Your task to perform on an android device: allow notifications from all sites in the chrome app Image 0: 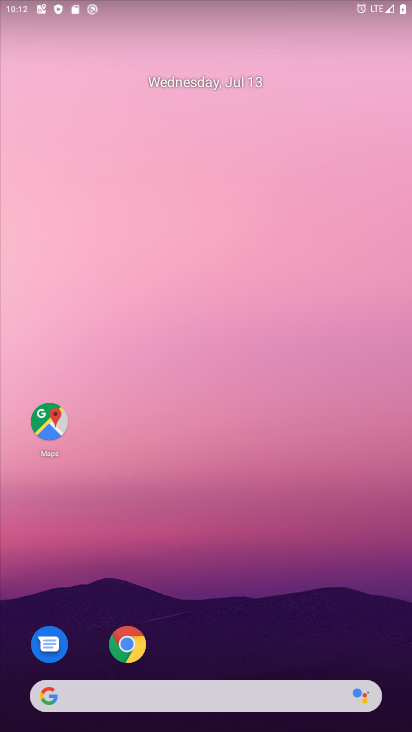
Step 0: drag from (201, 728) to (203, 117)
Your task to perform on an android device: allow notifications from all sites in the chrome app Image 1: 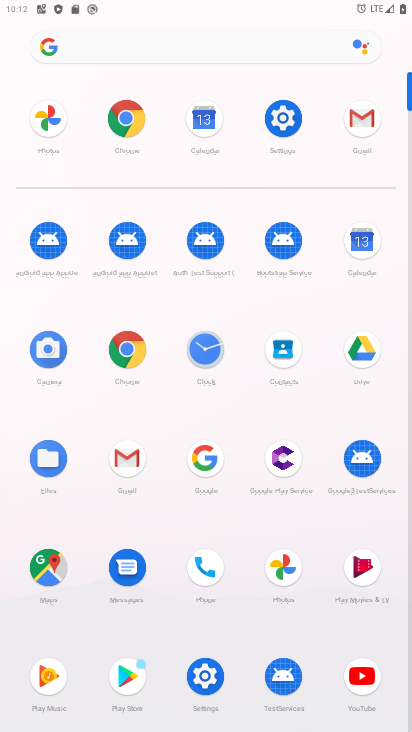
Step 1: click (123, 348)
Your task to perform on an android device: allow notifications from all sites in the chrome app Image 2: 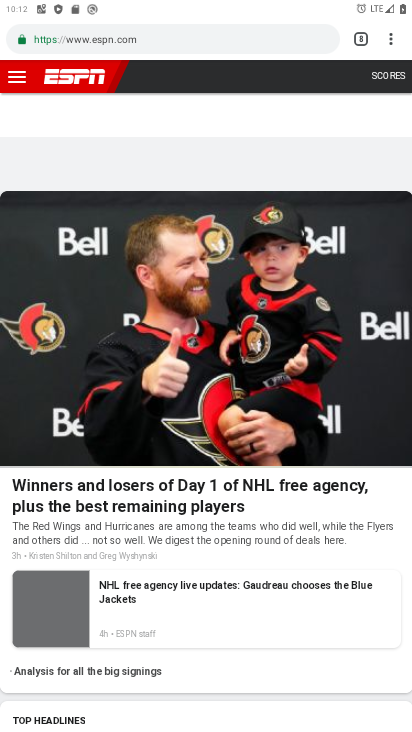
Step 2: click (391, 45)
Your task to perform on an android device: allow notifications from all sites in the chrome app Image 3: 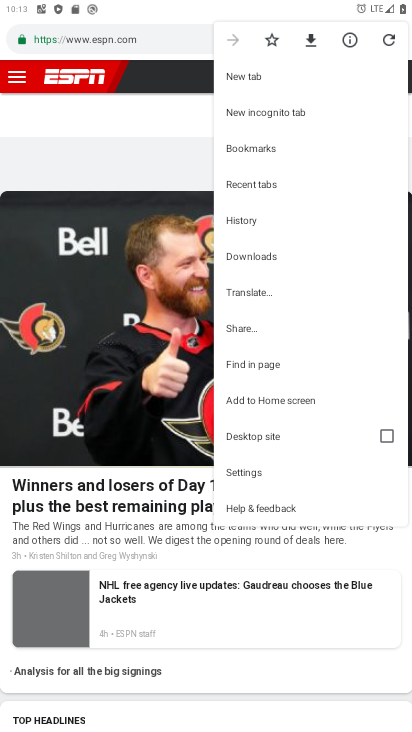
Step 3: click (240, 471)
Your task to perform on an android device: allow notifications from all sites in the chrome app Image 4: 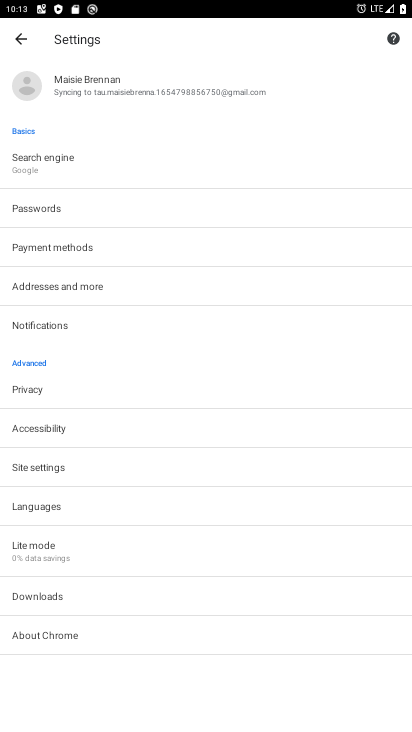
Step 4: click (32, 466)
Your task to perform on an android device: allow notifications from all sites in the chrome app Image 5: 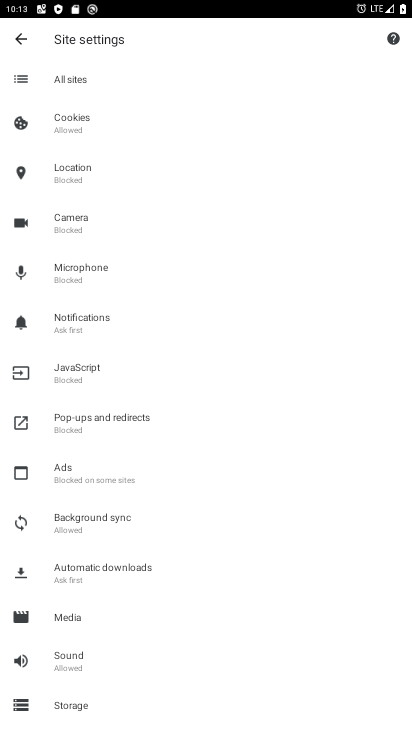
Step 5: click (82, 316)
Your task to perform on an android device: allow notifications from all sites in the chrome app Image 6: 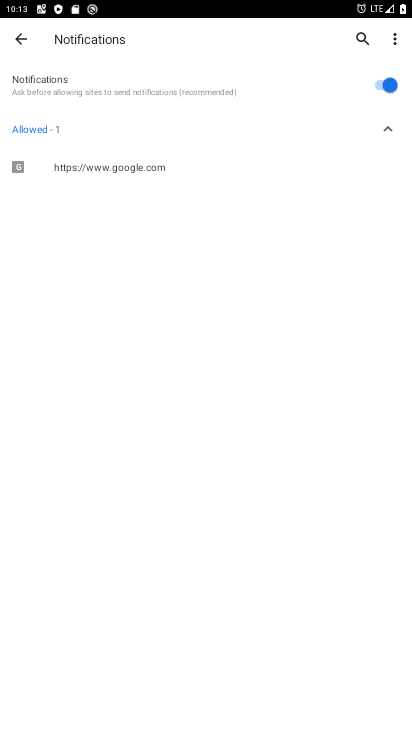
Step 6: task complete